Your task to perform on an android device: turn pop-ups on in chrome Image 0: 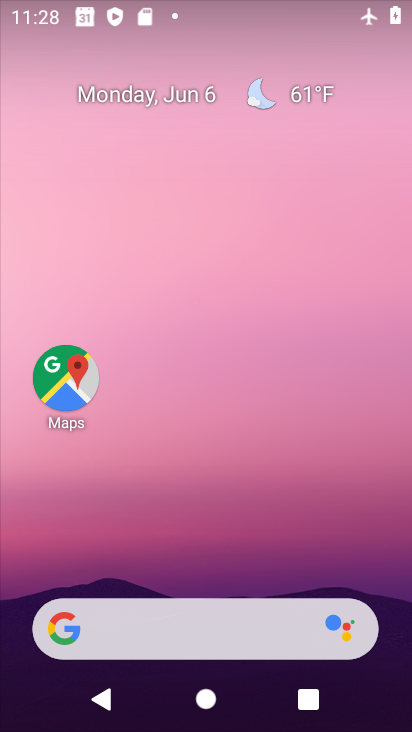
Step 0: drag from (202, 520) to (206, 105)
Your task to perform on an android device: turn pop-ups on in chrome Image 1: 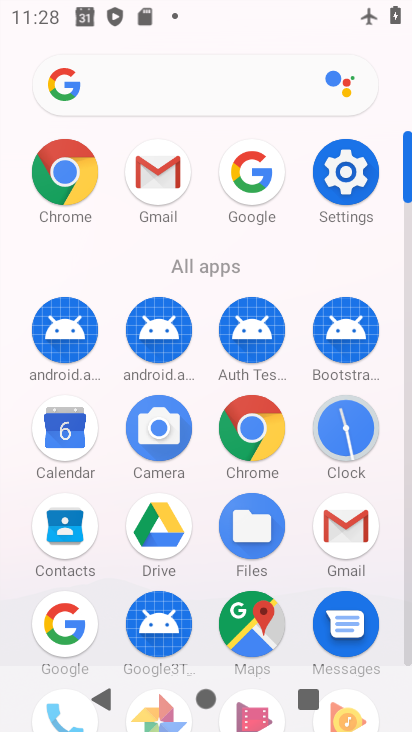
Step 1: click (65, 179)
Your task to perform on an android device: turn pop-ups on in chrome Image 2: 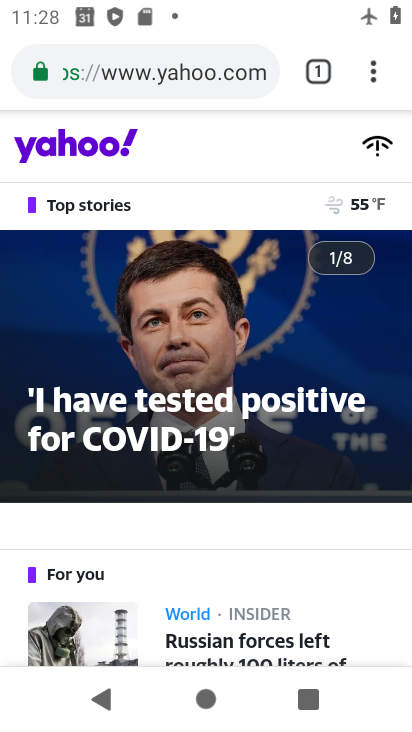
Step 2: click (360, 74)
Your task to perform on an android device: turn pop-ups on in chrome Image 3: 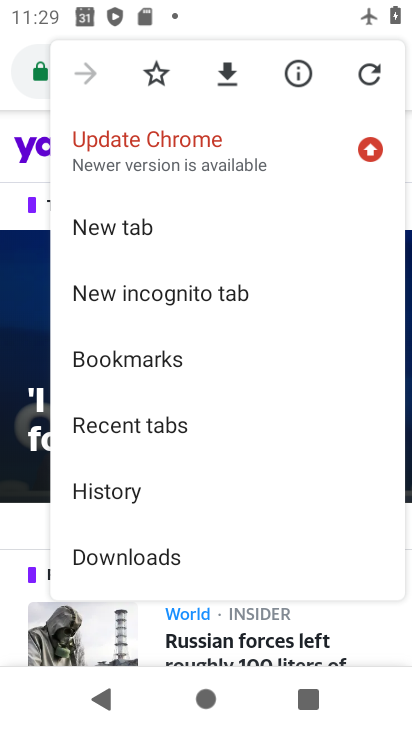
Step 3: drag from (201, 261) to (222, 64)
Your task to perform on an android device: turn pop-ups on in chrome Image 4: 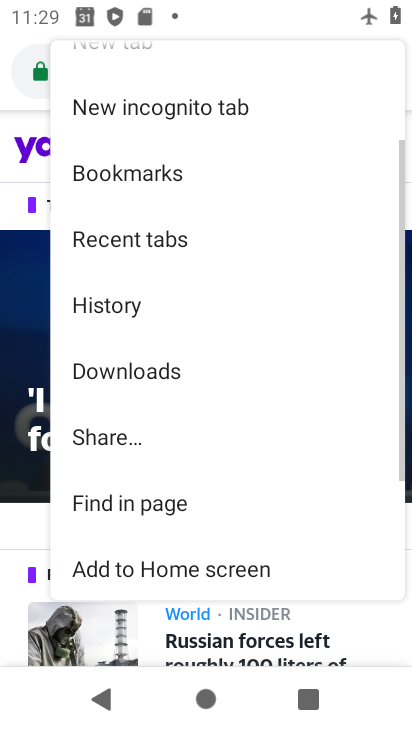
Step 4: drag from (246, 542) to (275, 149)
Your task to perform on an android device: turn pop-ups on in chrome Image 5: 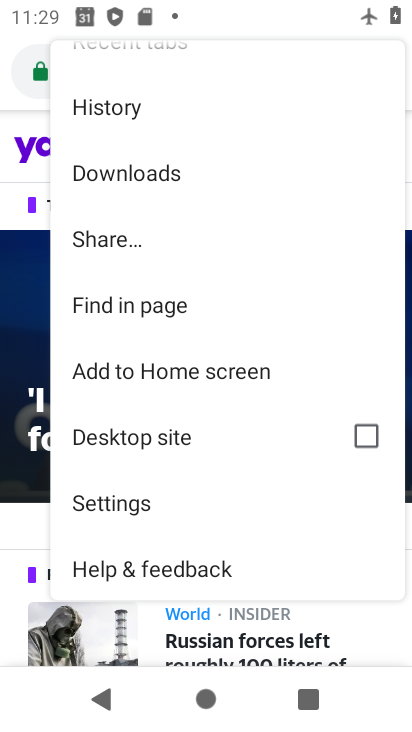
Step 5: click (90, 501)
Your task to perform on an android device: turn pop-ups on in chrome Image 6: 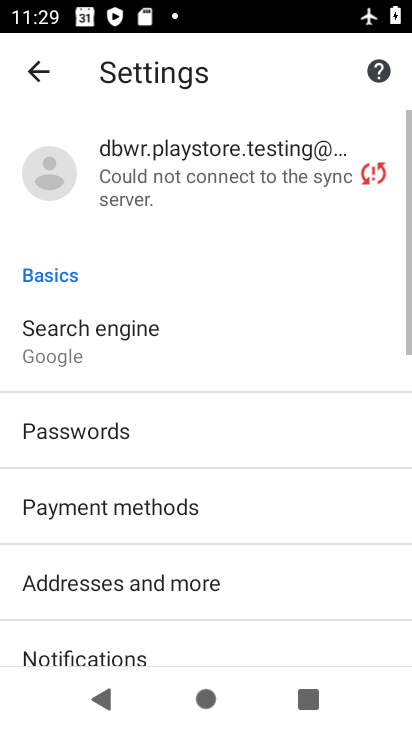
Step 6: drag from (229, 590) to (266, 166)
Your task to perform on an android device: turn pop-ups on in chrome Image 7: 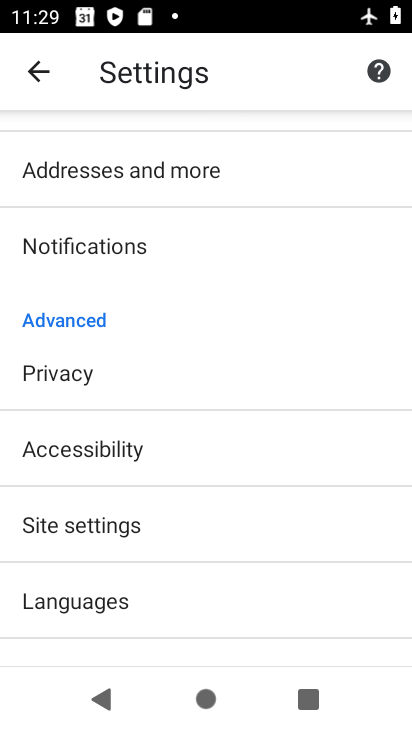
Step 7: click (117, 545)
Your task to perform on an android device: turn pop-ups on in chrome Image 8: 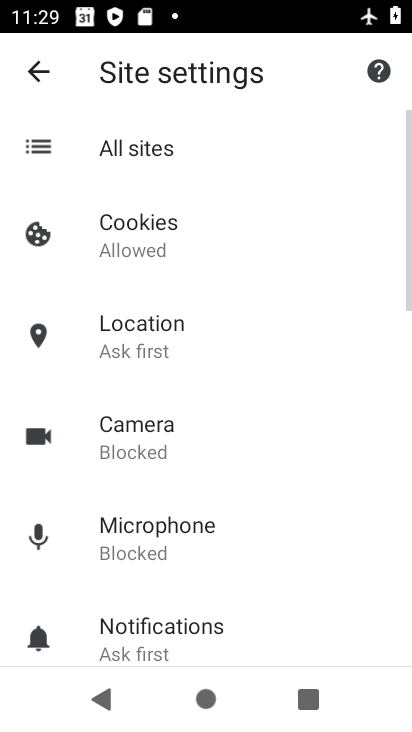
Step 8: drag from (265, 615) to (306, 270)
Your task to perform on an android device: turn pop-ups on in chrome Image 9: 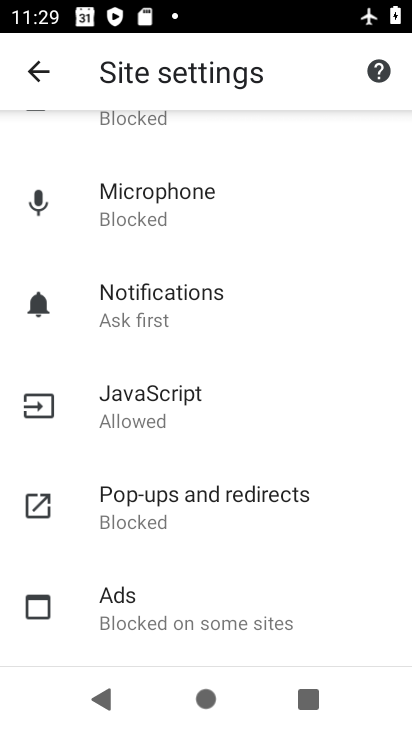
Step 9: click (152, 512)
Your task to perform on an android device: turn pop-ups on in chrome Image 10: 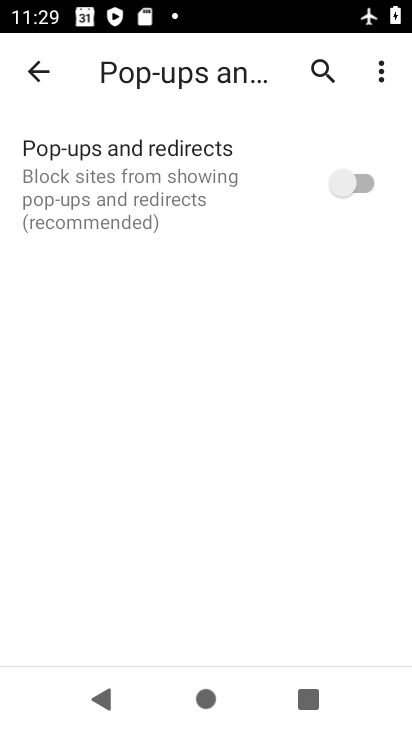
Step 10: click (361, 169)
Your task to perform on an android device: turn pop-ups on in chrome Image 11: 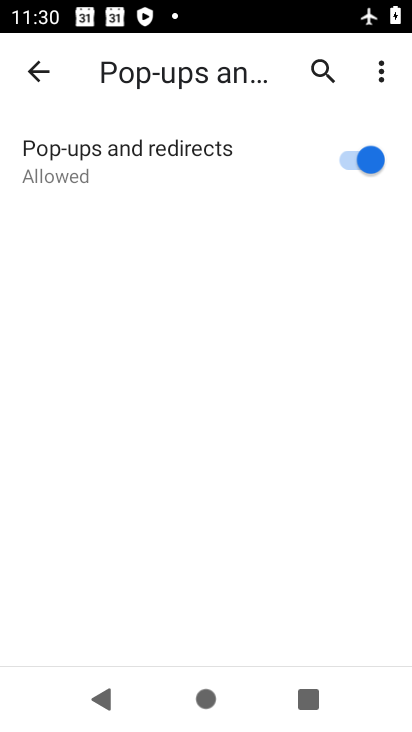
Step 11: task complete